Your task to perform on an android device: Is it going to rain this weekend? Image 0: 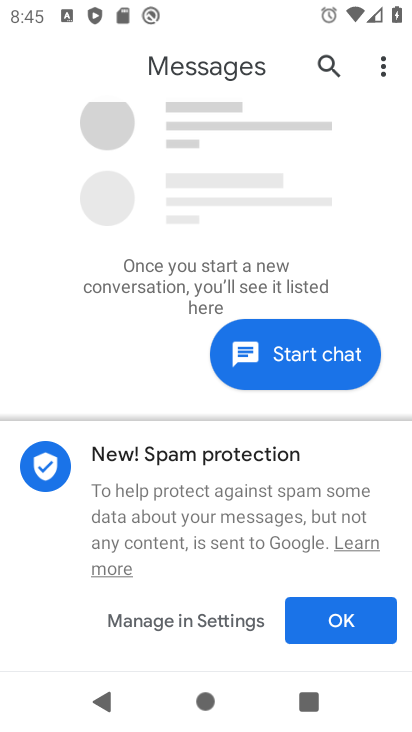
Step 0: press home button
Your task to perform on an android device: Is it going to rain this weekend? Image 1: 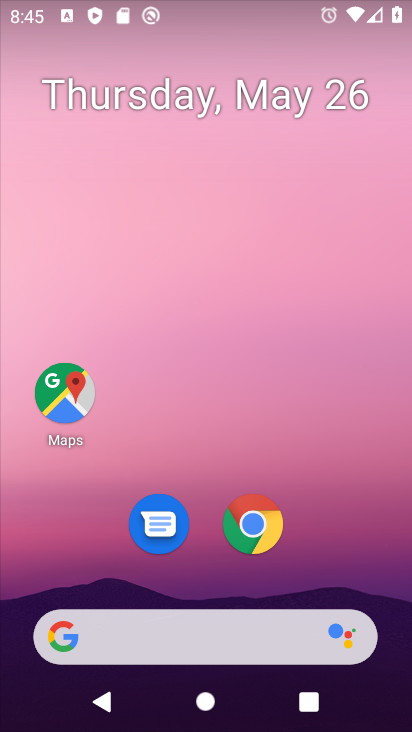
Step 1: click (275, 640)
Your task to perform on an android device: Is it going to rain this weekend? Image 2: 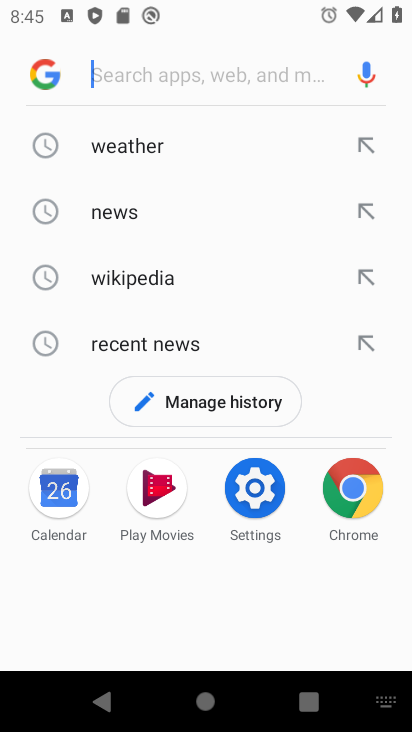
Step 2: click (127, 147)
Your task to perform on an android device: Is it going to rain this weekend? Image 3: 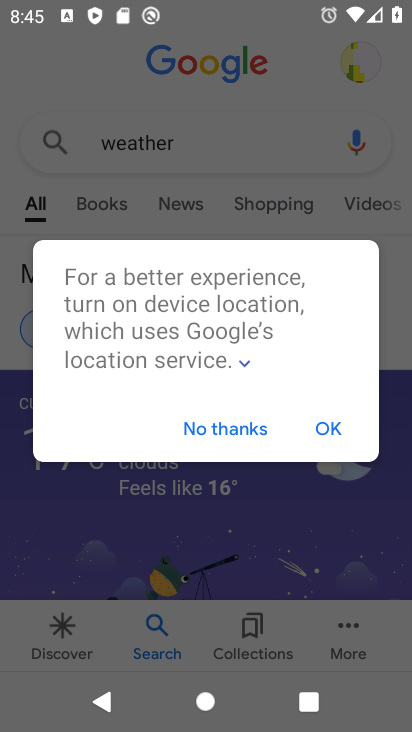
Step 3: click (327, 421)
Your task to perform on an android device: Is it going to rain this weekend? Image 4: 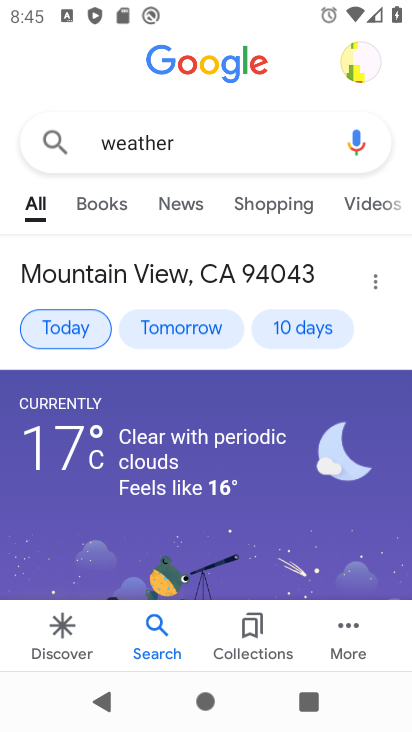
Step 4: click (73, 328)
Your task to perform on an android device: Is it going to rain this weekend? Image 5: 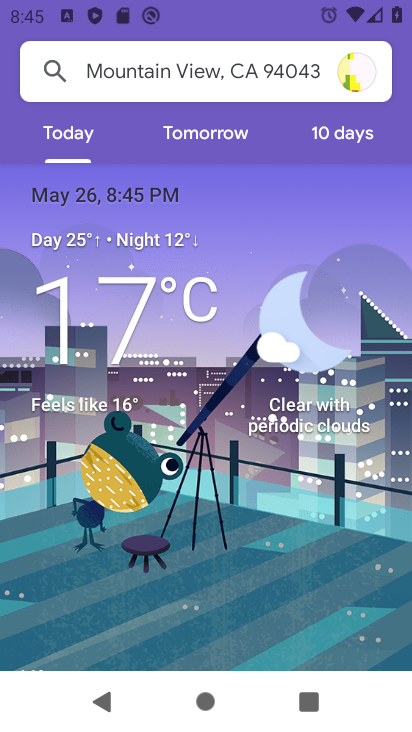
Step 5: click (349, 136)
Your task to perform on an android device: Is it going to rain this weekend? Image 6: 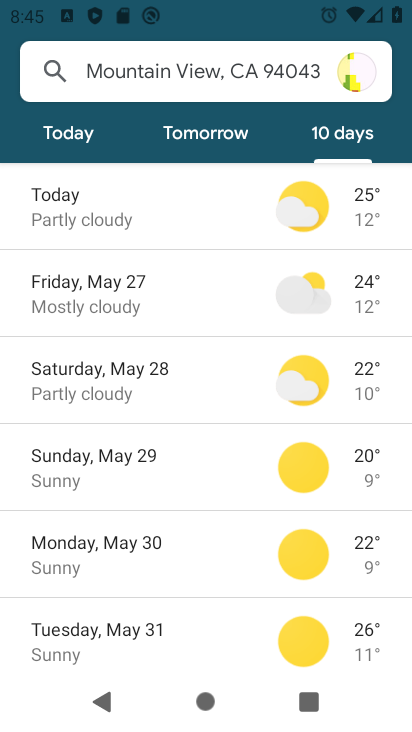
Step 6: click (117, 364)
Your task to perform on an android device: Is it going to rain this weekend? Image 7: 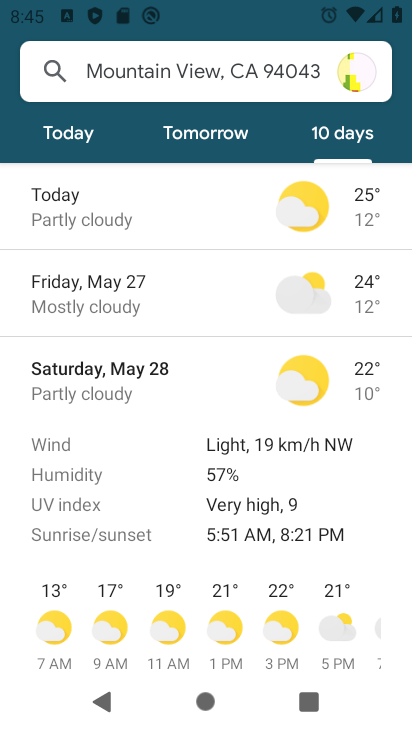
Step 7: task complete